Your task to perform on an android device: Open Chrome and go to the settings page Image 0: 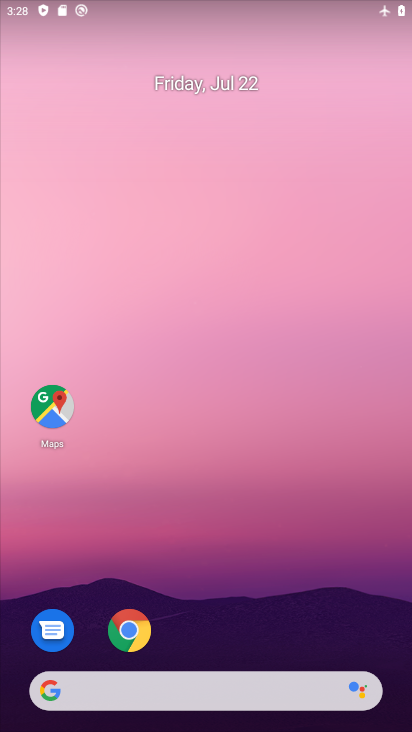
Step 0: click (122, 621)
Your task to perform on an android device: Open Chrome and go to the settings page Image 1: 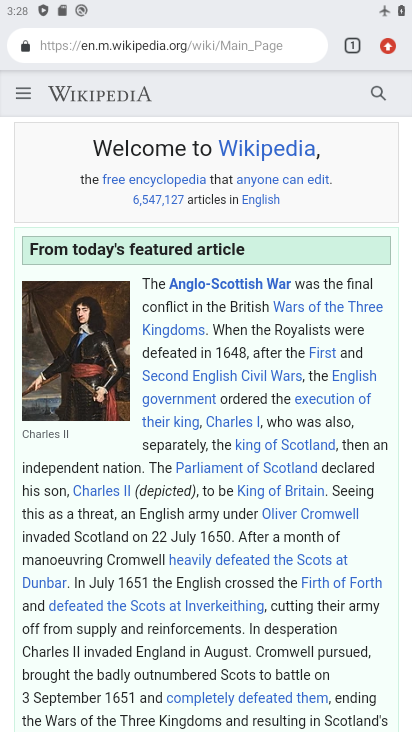
Step 1: click (393, 43)
Your task to perform on an android device: Open Chrome and go to the settings page Image 2: 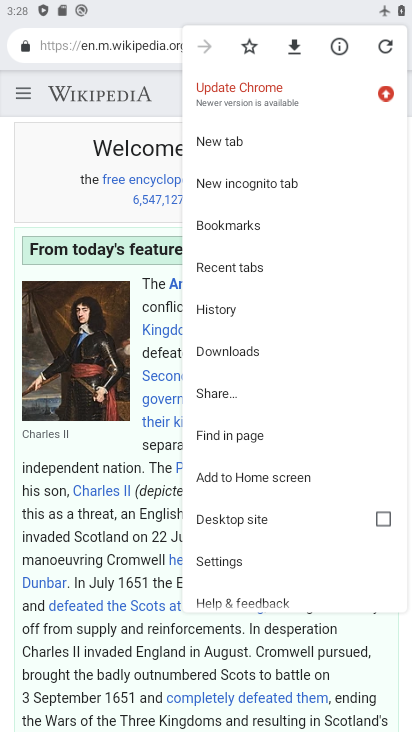
Step 2: click (230, 559)
Your task to perform on an android device: Open Chrome and go to the settings page Image 3: 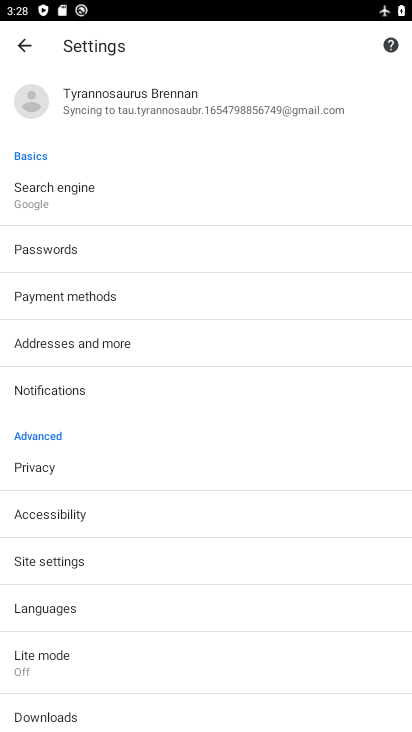
Step 3: task complete